Your task to perform on an android device: remove spam from my inbox in the gmail app Image 0: 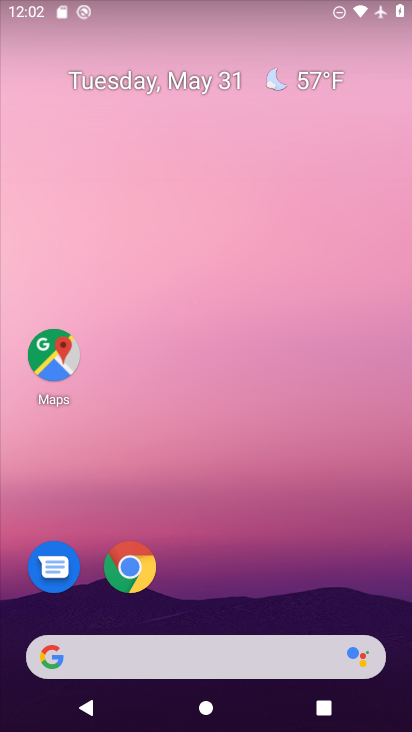
Step 0: drag from (241, 564) to (225, 161)
Your task to perform on an android device: remove spam from my inbox in the gmail app Image 1: 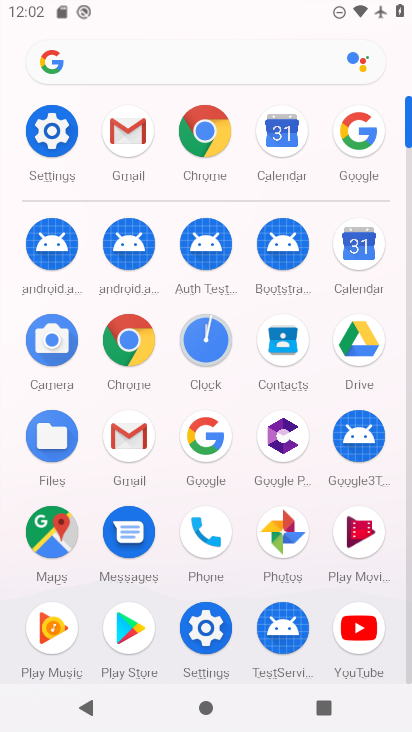
Step 1: click (132, 138)
Your task to perform on an android device: remove spam from my inbox in the gmail app Image 2: 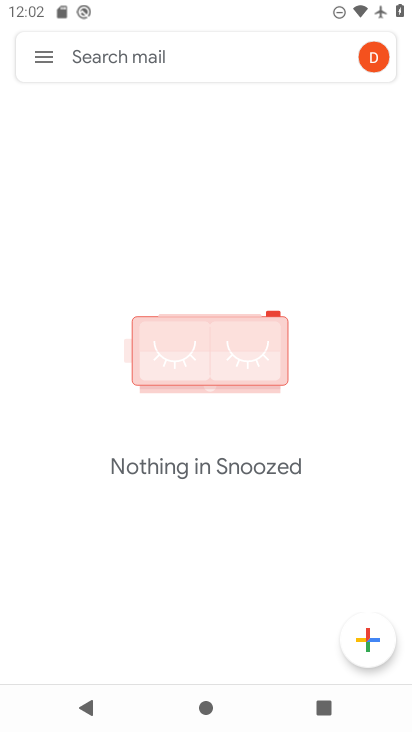
Step 2: click (39, 55)
Your task to perform on an android device: remove spam from my inbox in the gmail app Image 3: 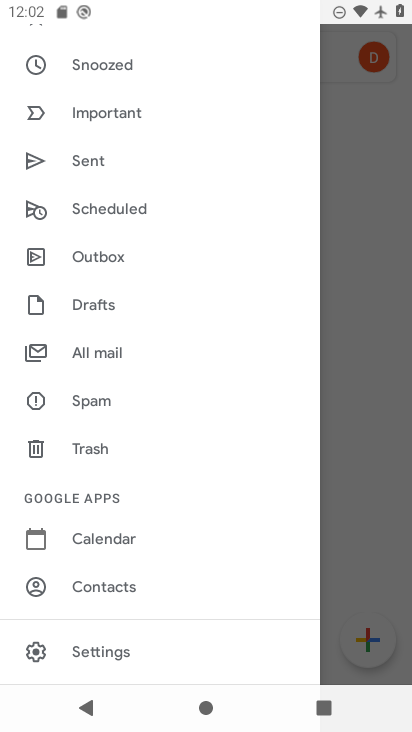
Step 3: drag from (93, 610) to (130, 277)
Your task to perform on an android device: remove spam from my inbox in the gmail app Image 4: 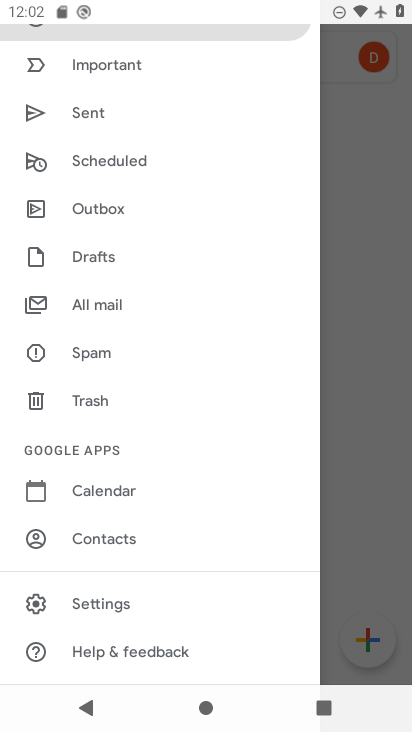
Step 4: click (118, 348)
Your task to perform on an android device: remove spam from my inbox in the gmail app Image 5: 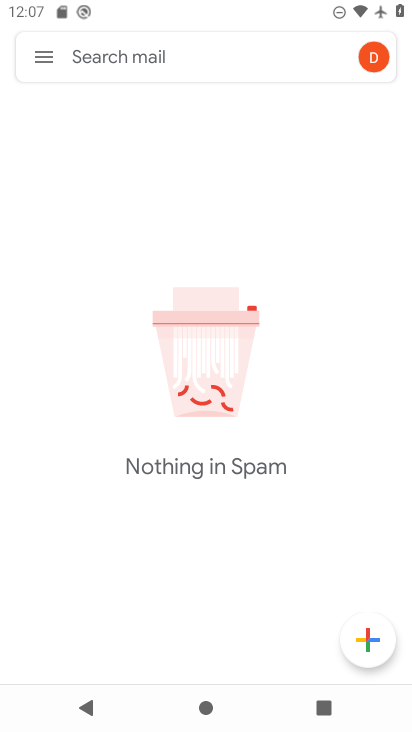
Step 5: task complete